Your task to perform on an android device: Open Wikipedia Image 0: 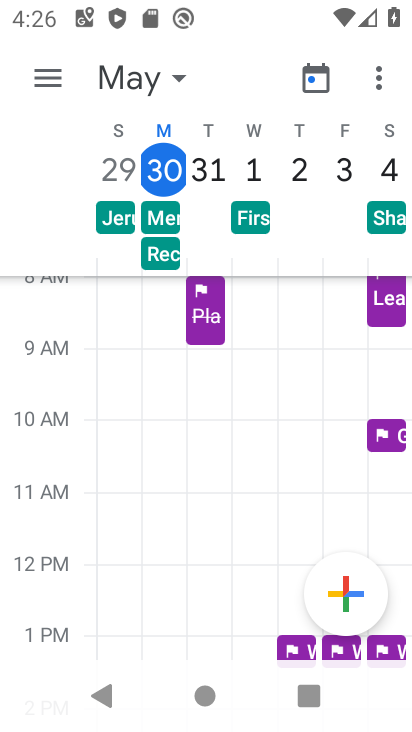
Step 0: press home button
Your task to perform on an android device: Open Wikipedia Image 1: 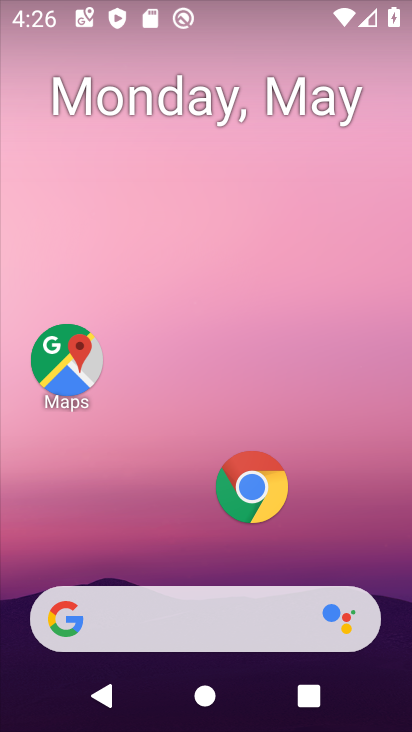
Step 1: click (239, 499)
Your task to perform on an android device: Open Wikipedia Image 2: 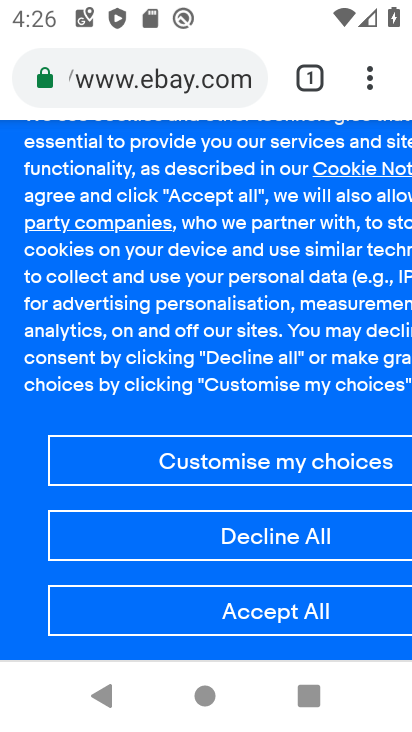
Step 2: click (313, 88)
Your task to perform on an android device: Open Wikipedia Image 3: 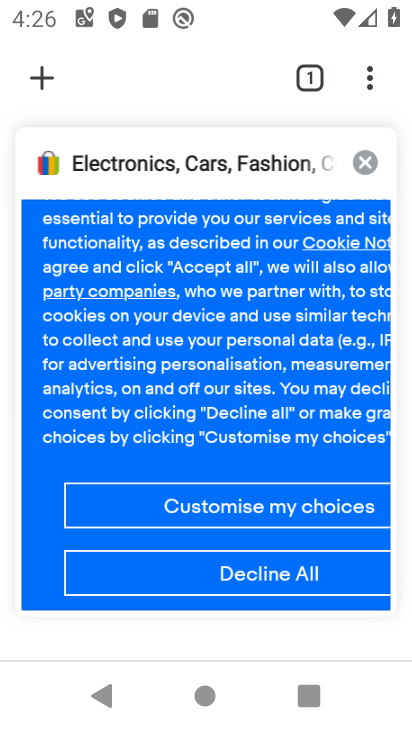
Step 3: click (365, 159)
Your task to perform on an android device: Open Wikipedia Image 4: 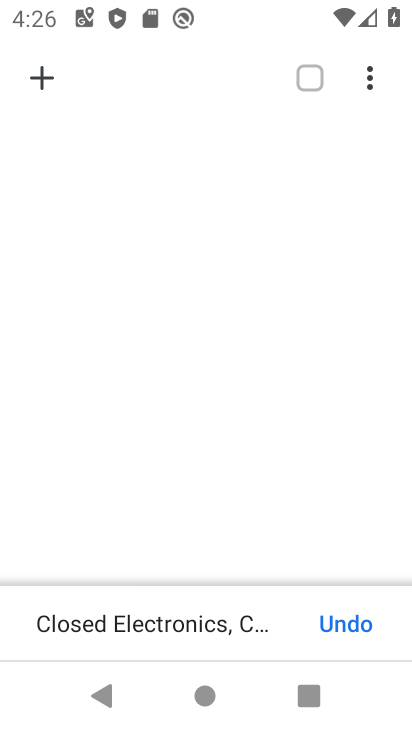
Step 4: click (40, 80)
Your task to perform on an android device: Open Wikipedia Image 5: 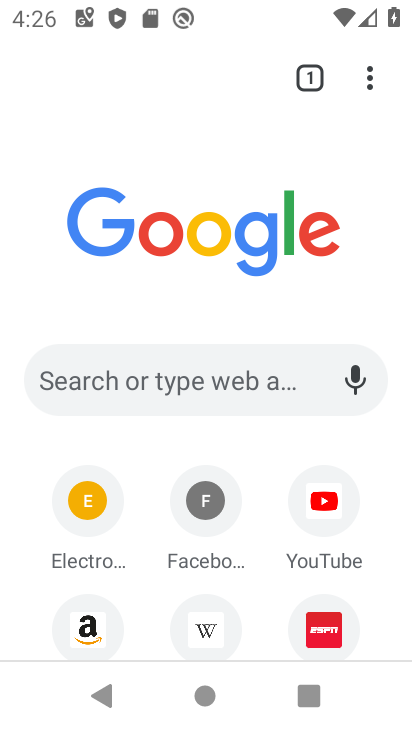
Step 5: click (222, 628)
Your task to perform on an android device: Open Wikipedia Image 6: 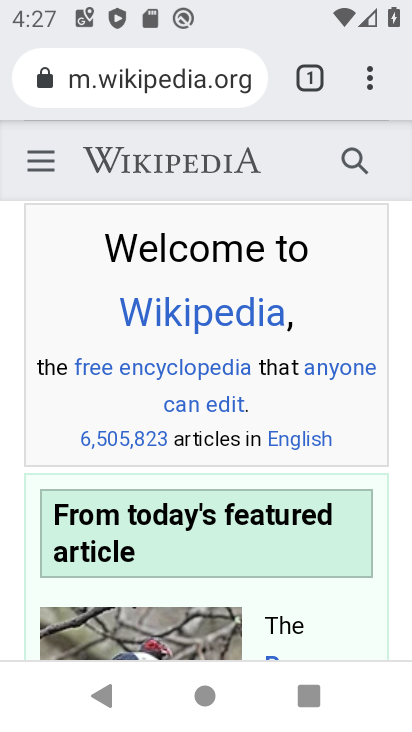
Step 6: task complete